Your task to perform on an android device: Check the news Image 0: 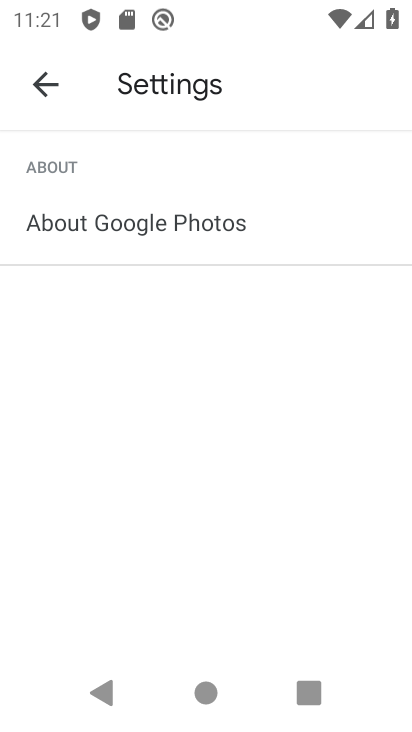
Step 0: press home button
Your task to perform on an android device: Check the news Image 1: 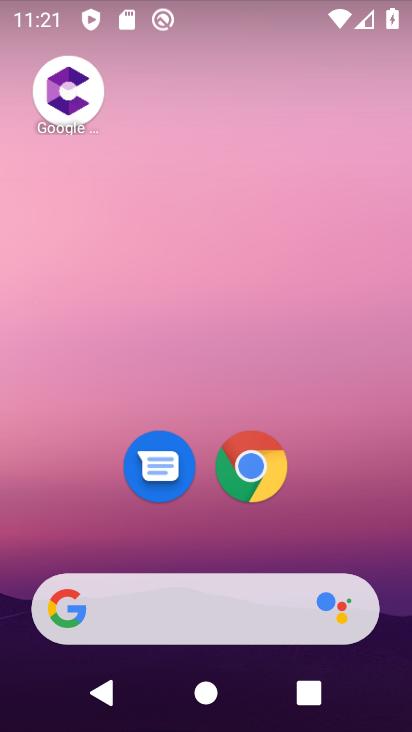
Step 1: task complete